Your task to perform on an android device: read, delete, or share a saved page in the chrome app Image 0: 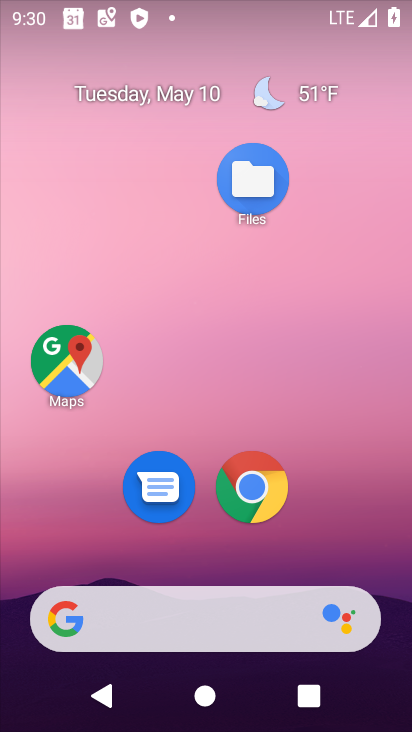
Step 0: click (250, 495)
Your task to perform on an android device: read, delete, or share a saved page in the chrome app Image 1: 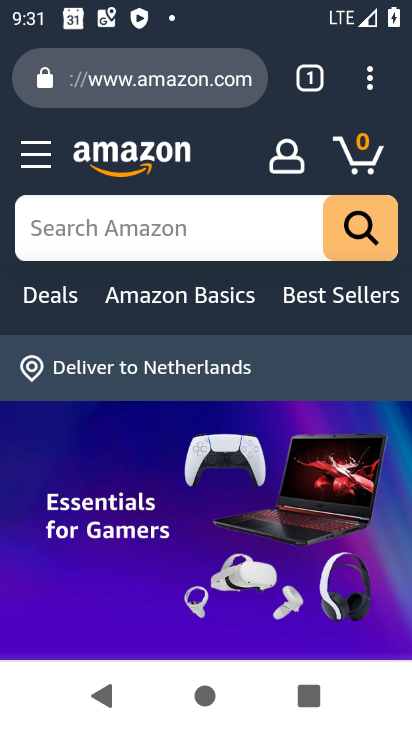
Step 1: click (362, 86)
Your task to perform on an android device: read, delete, or share a saved page in the chrome app Image 2: 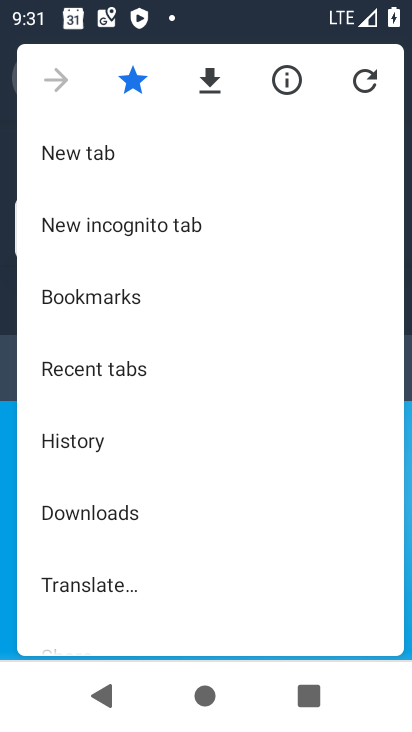
Step 2: click (123, 510)
Your task to perform on an android device: read, delete, or share a saved page in the chrome app Image 3: 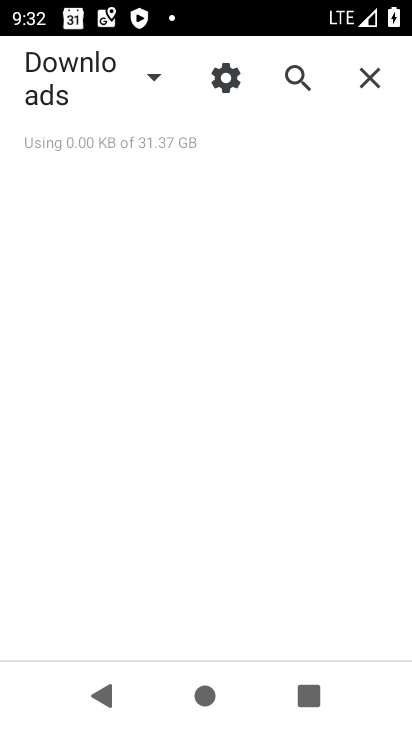
Step 3: task complete